Your task to perform on an android device: What's the weather going to be this weekend? Image 0: 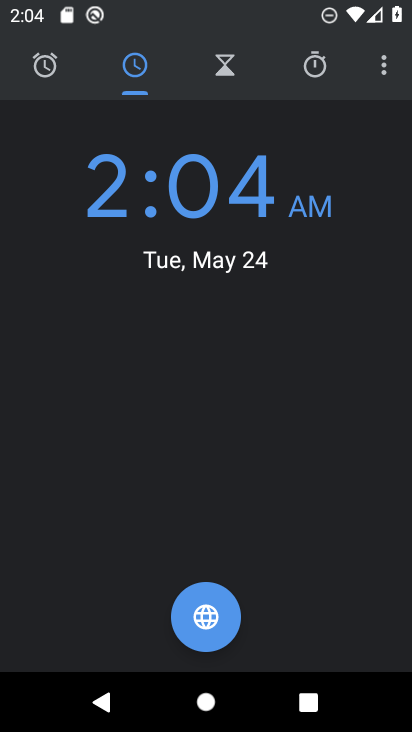
Step 0: press home button
Your task to perform on an android device: What's the weather going to be this weekend? Image 1: 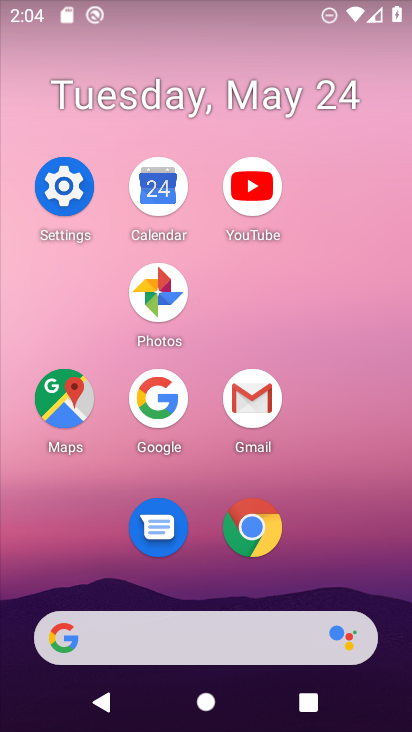
Step 1: click (161, 406)
Your task to perform on an android device: What's the weather going to be this weekend? Image 2: 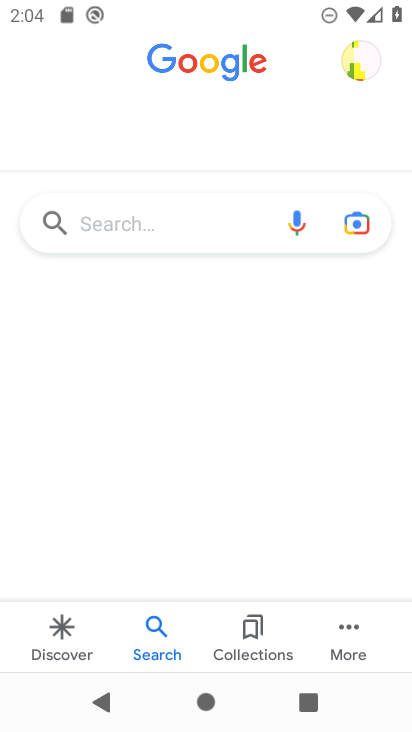
Step 2: click (106, 232)
Your task to perform on an android device: What's the weather going to be this weekend? Image 3: 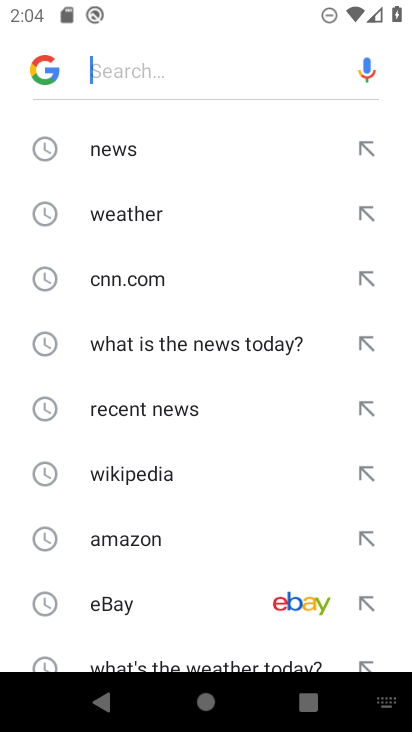
Step 3: click (129, 198)
Your task to perform on an android device: What's the weather going to be this weekend? Image 4: 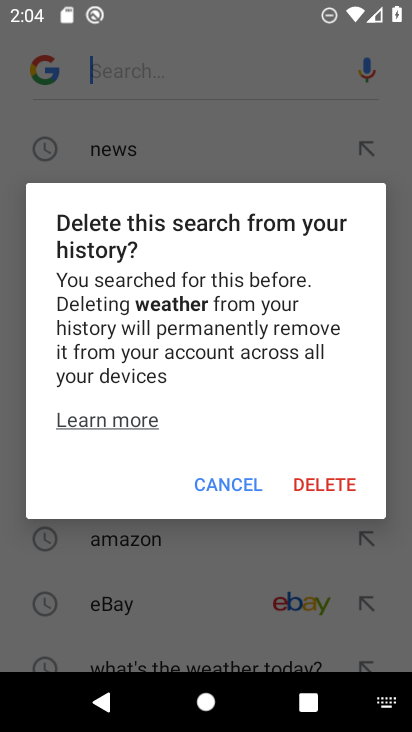
Step 4: click (249, 482)
Your task to perform on an android device: What's the weather going to be this weekend? Image 5: 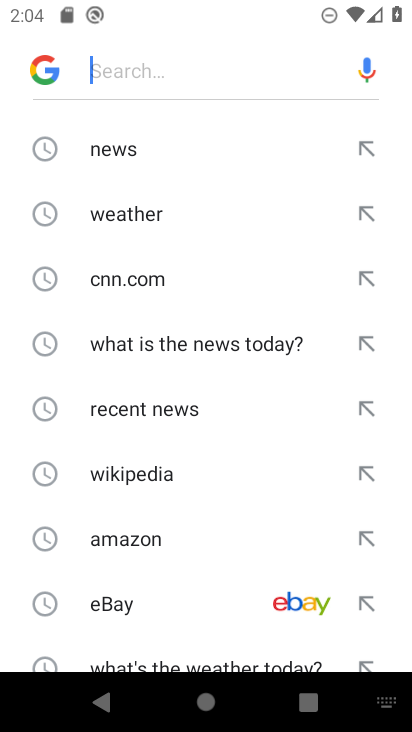
Step 5: click (127, 215)
Your task to perform on an android device: What's the weather going to be this weekend? Image 6: 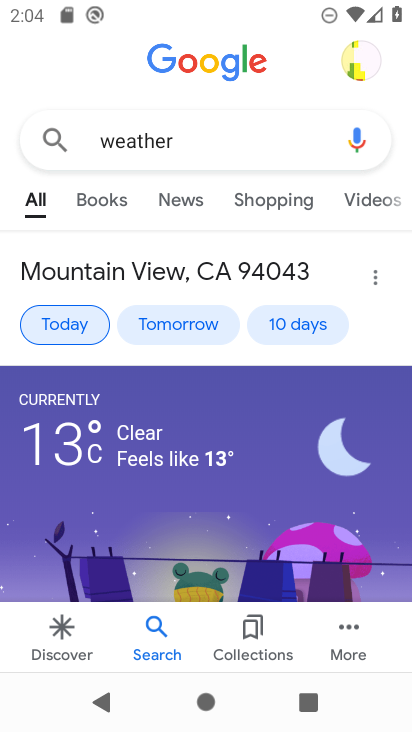
Step 6: click (292, 332)
Your task to perform on an android device: What's the weather going to be this weekend? Image 7: 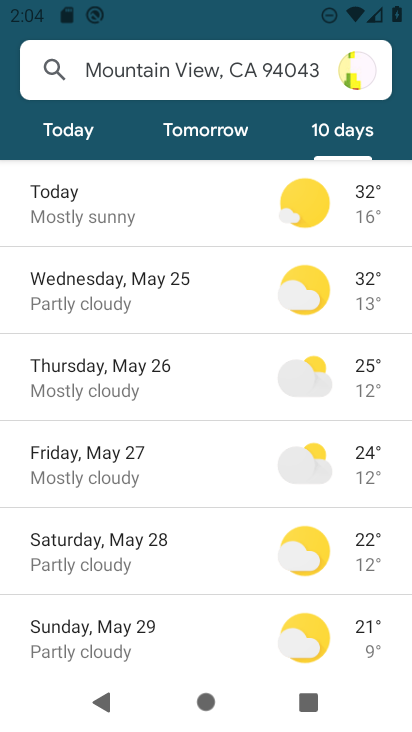
Step 7: click (115, 560)
Your task to perform on an android device: What's the weather going to be this weekend? Image 8: 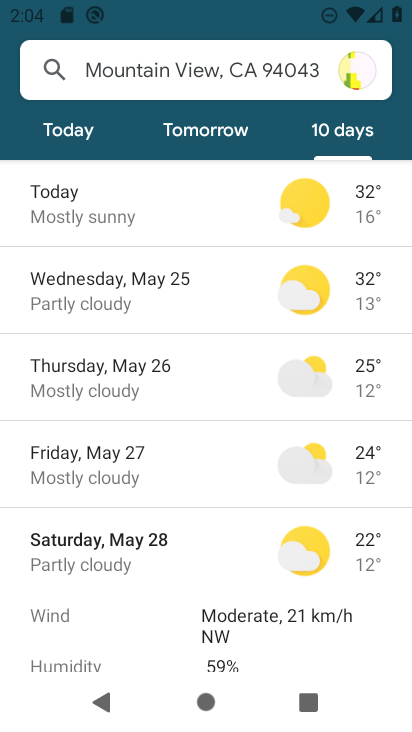
Step 8: task complete